Your task to perform on an android device: turn off translation in the chrome app Image 0: 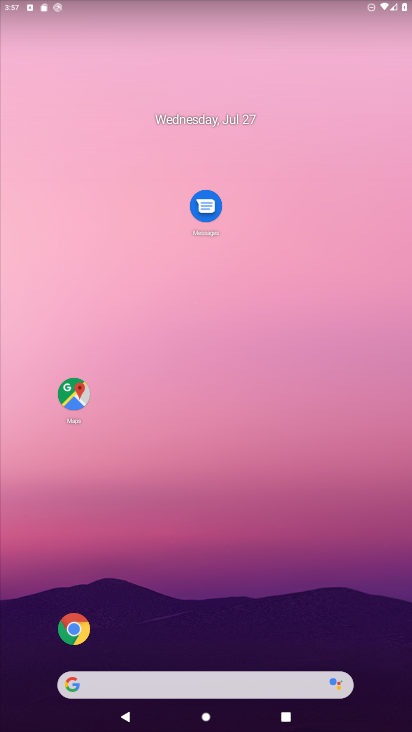
Step 0: click (85, 624)
Your task to perform on an android device: turn off translation in the chrome app Image 1: 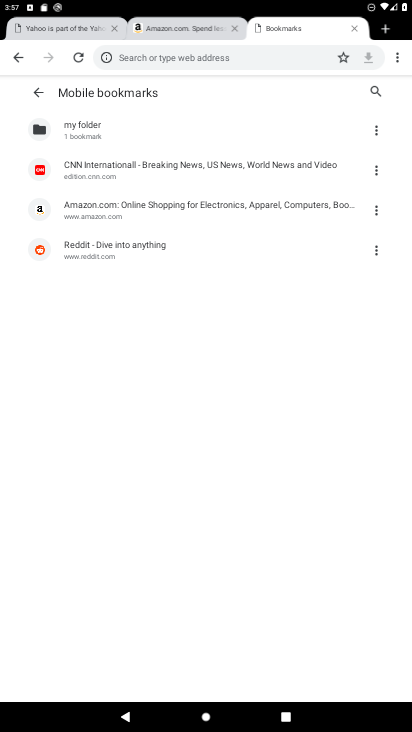
Step 1: click (404, 53)
Your task to perform on an android device: turn off translation in the chrome app Image 2: 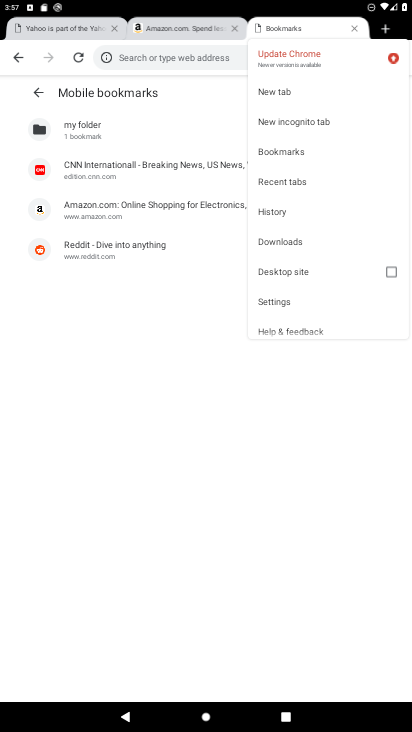
Step 2: click (291, 304)
Your task to perform on an android device: turn off translation in the chrome app Image 3: 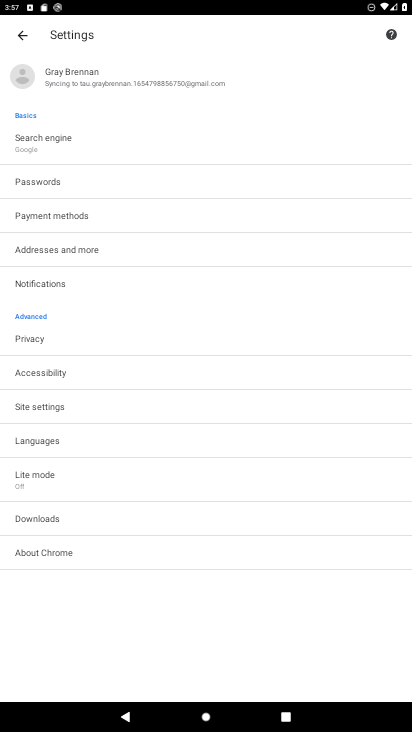
Step 3: click (54, 430)
Your task to perform on an android device: turn off translation in the chrome app Image 4: 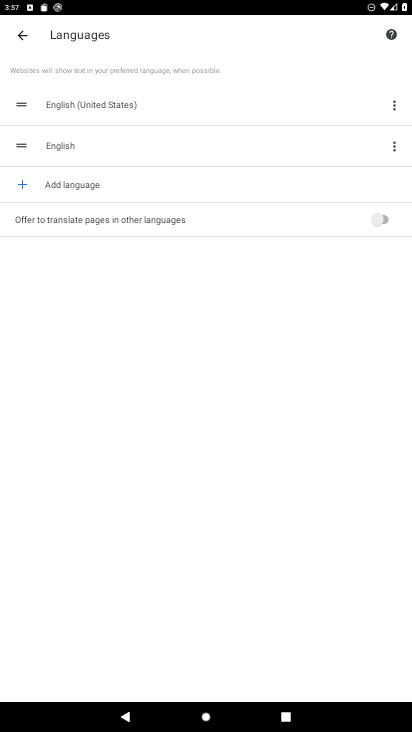
Step 4: task complete